Your task to perform on an android device: Search for Mexican restaurants on Maps Image 0: 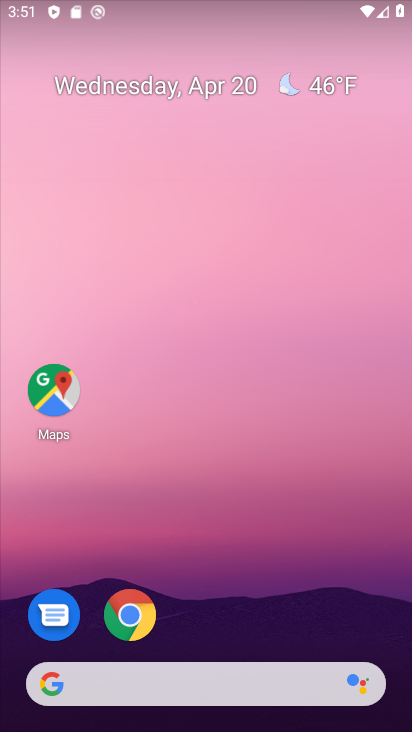
Step 0: click (60, 399)
Your task to perform on an android device: Search for Mexican restaurants on Maps Image 1: 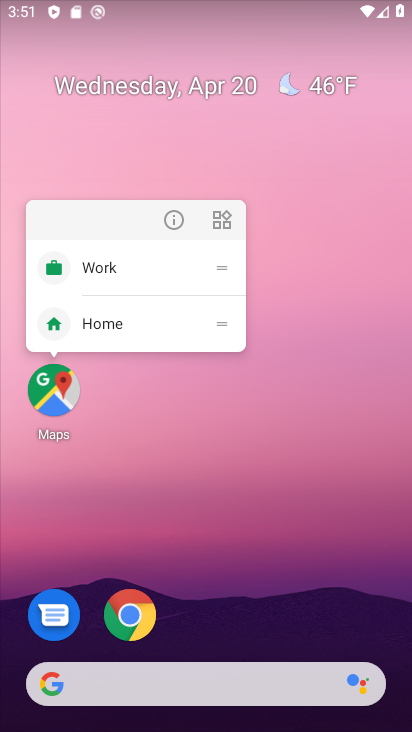
Step 1: click (53, 381)
Your task to perform on an android device: Search for Mexican restaurants on Maps Image 2: 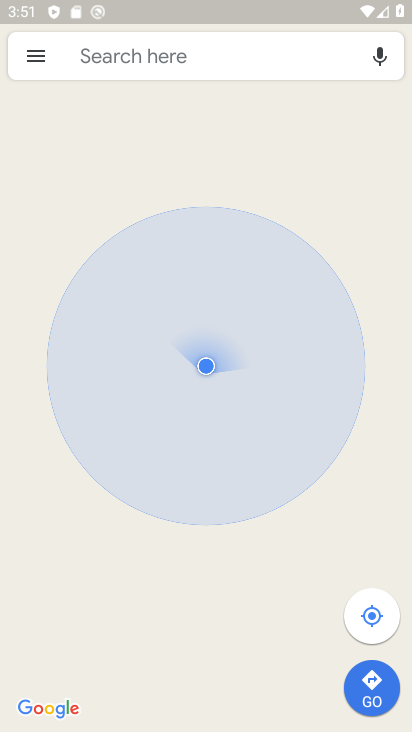
Step 2: click (202, 64)
Your task to perform on an android device: Search for Mexican restaurants on Maps Image 3: 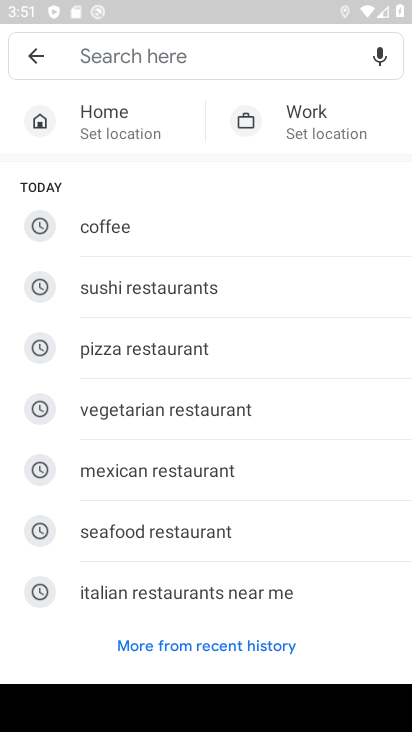
Step 3: type "mexican"
Your task to perform on an android device: Search for Mexican restaurants on Maps Image 4: 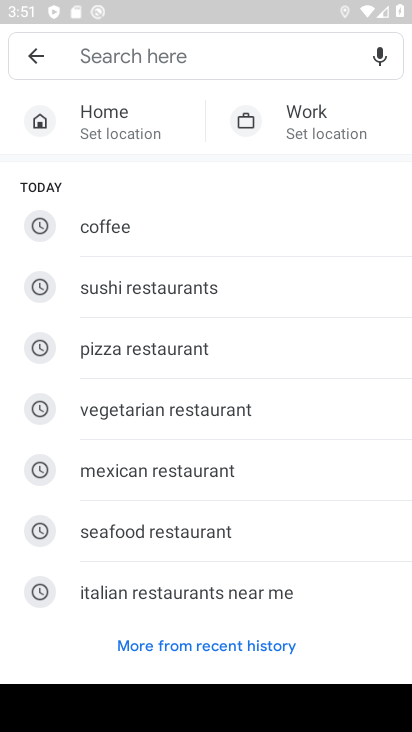
Step 4: click (163, 474)
Your task to perform on an android device: Search for Mexican restaurants on Maps Image 5: 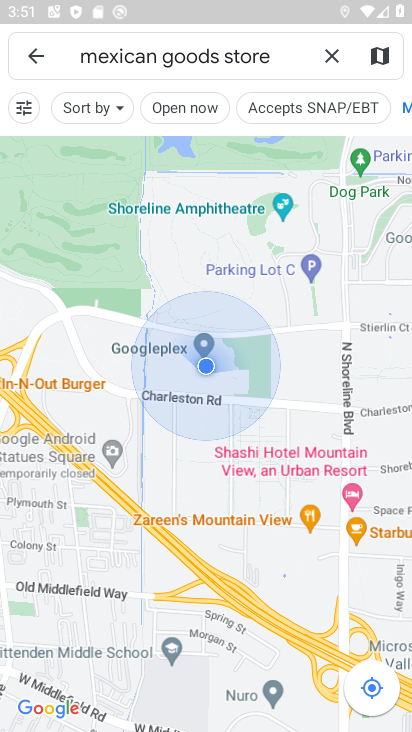
Step 5: click (286, 55)
Your task to perform on an android device: Search for Mexican restaurants on Maps Image 6: 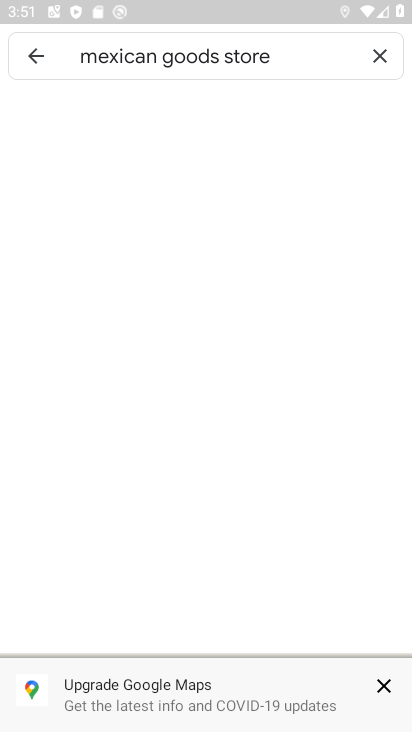
Step 6: click (330, 47)
Your task to perform on an android device: Search for Mexican restaurants on Maps Image 7: 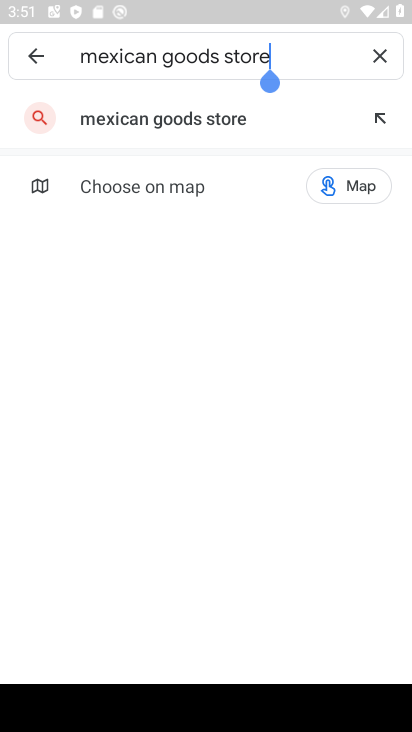
Step 7: click (381, 44)
Your task to perform on an android device: Search for Mexican restaurants on Maps Image 8: 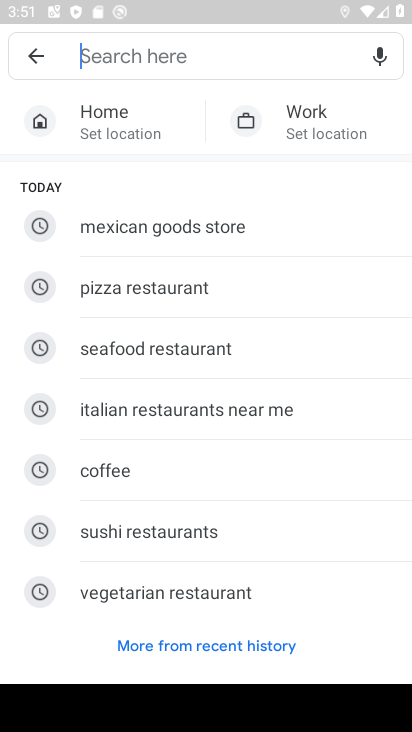
Step 8: type "mexican restaurant"
Your task to perform on an android device: Search for Mexican restaurants on Maps Image 9: 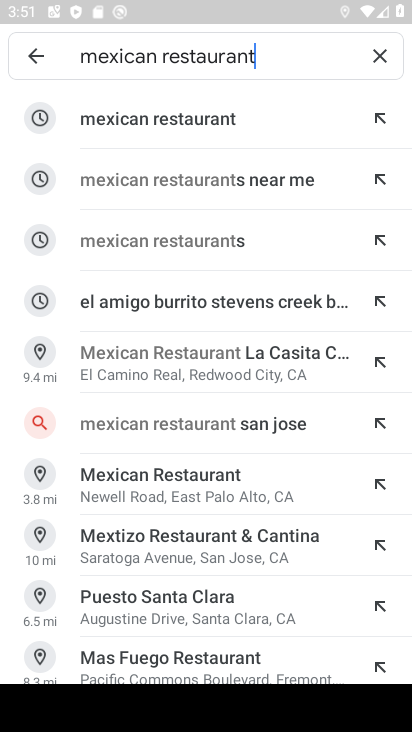
Step 9: click (173, 124)
Your task to perform on an android device: Search for Mexican restaurants on Maps Image 10: 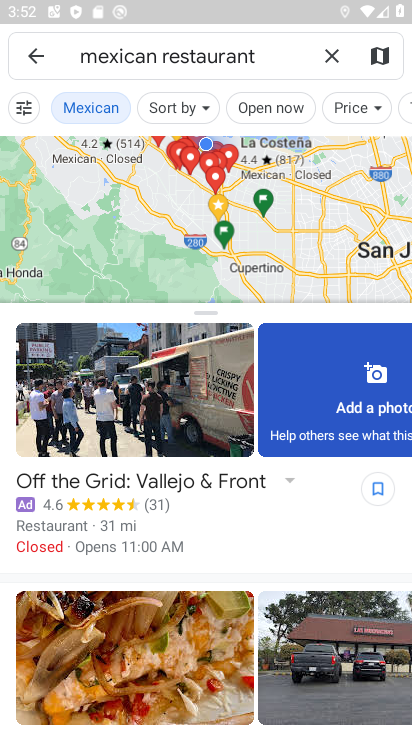
Step 10: task complete